Your task to perform on an android device: Open ESPN.com Image 0: 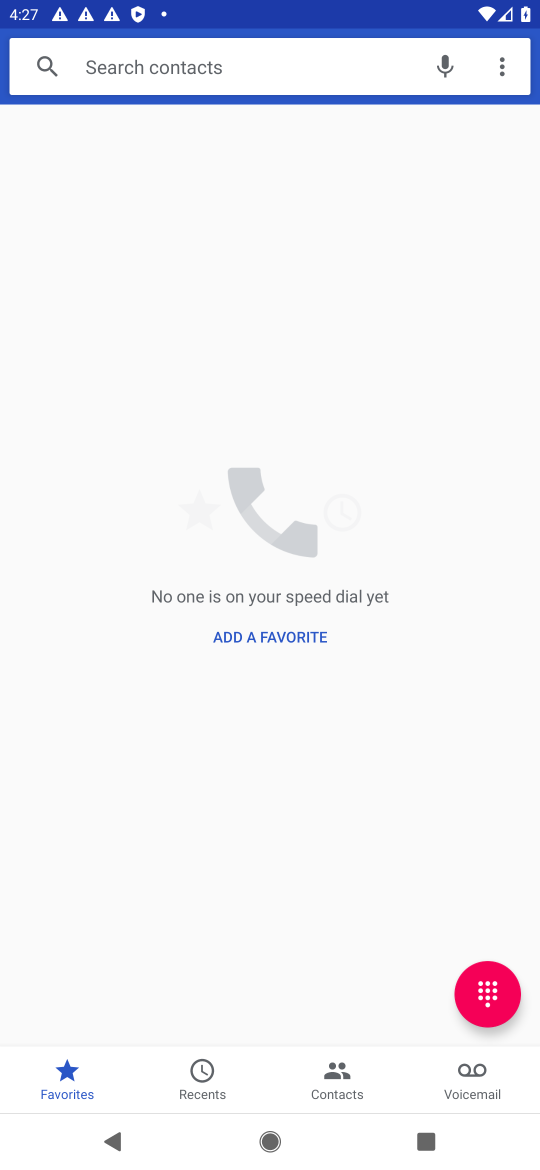
Step 0: press home button
Your task to perform on an android device: Open ESPN.com Image 1: 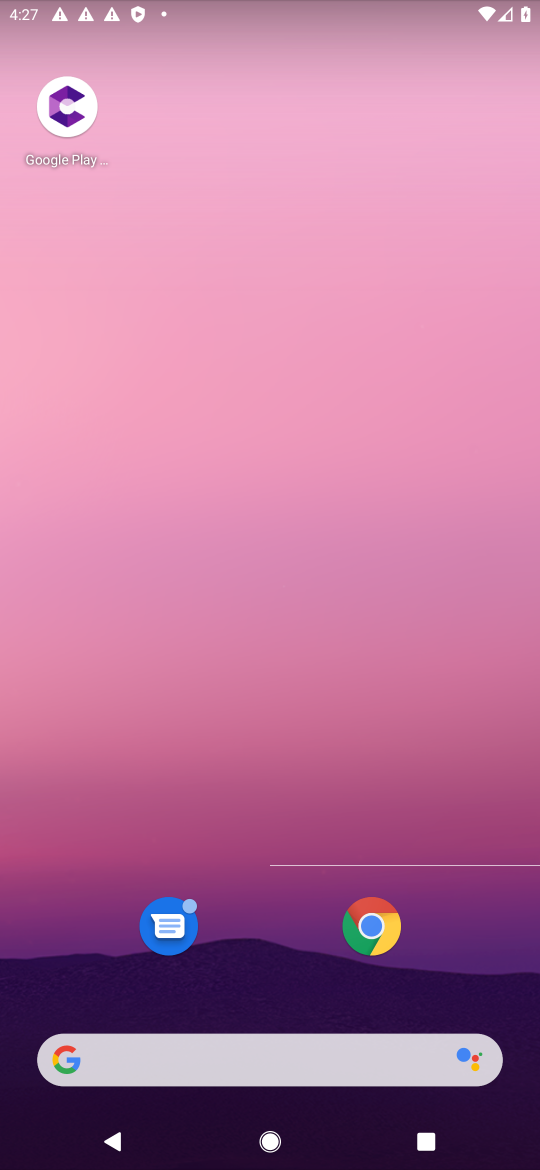
Step 1: click (60, 1051)
Your task to perform on an android device: Open ESPN.com Image 2: 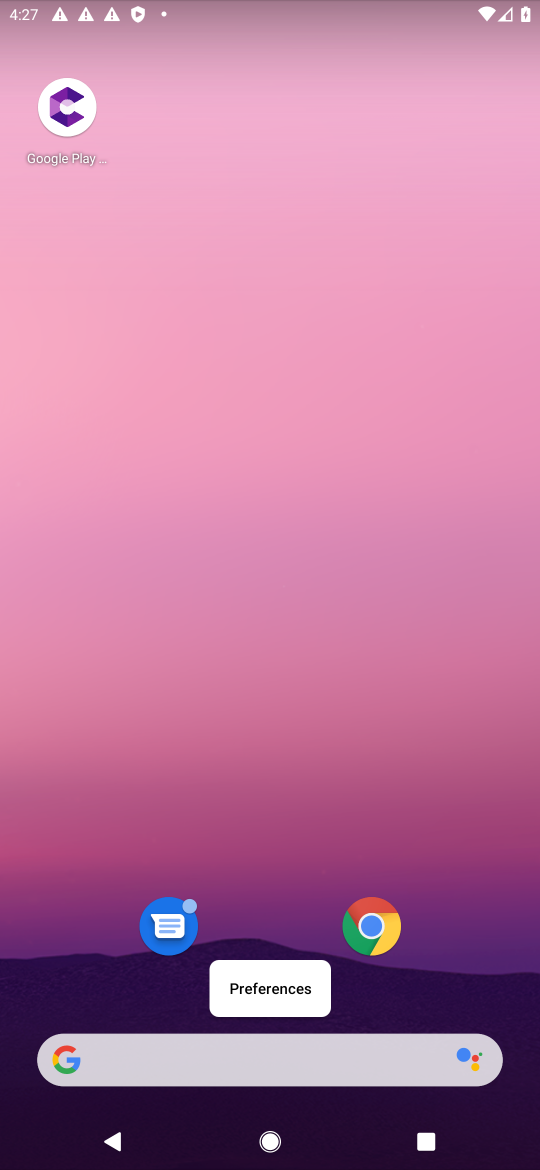
Step 2: click (57, 1061)
Your task to perform on an android device: Open ESPN.com Image 3: 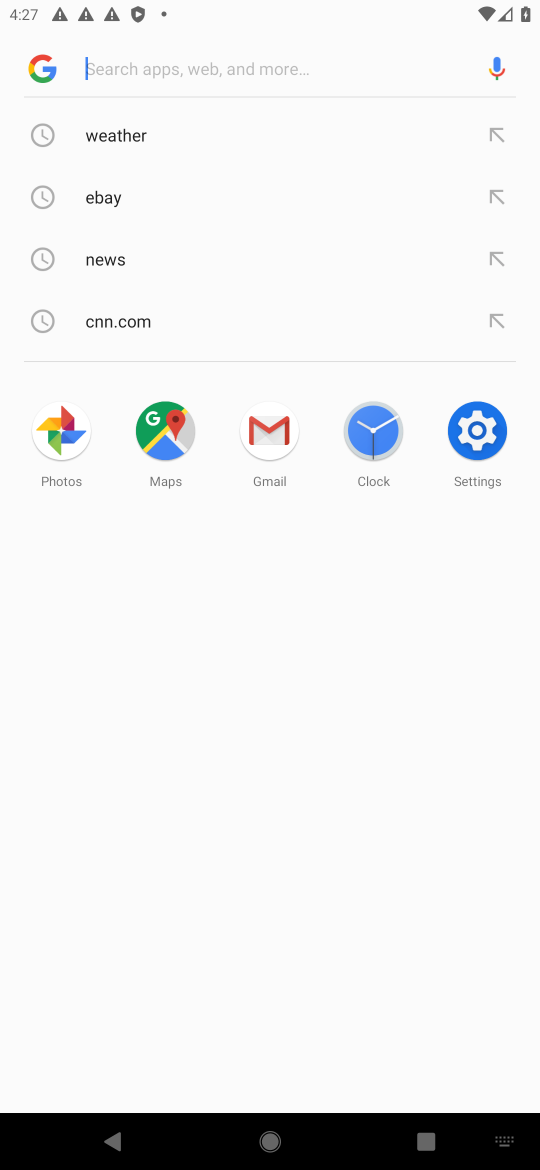
Step 3: type "ESPN.com"
Your task to perform on an android device: Open ESPN.com Image 4: 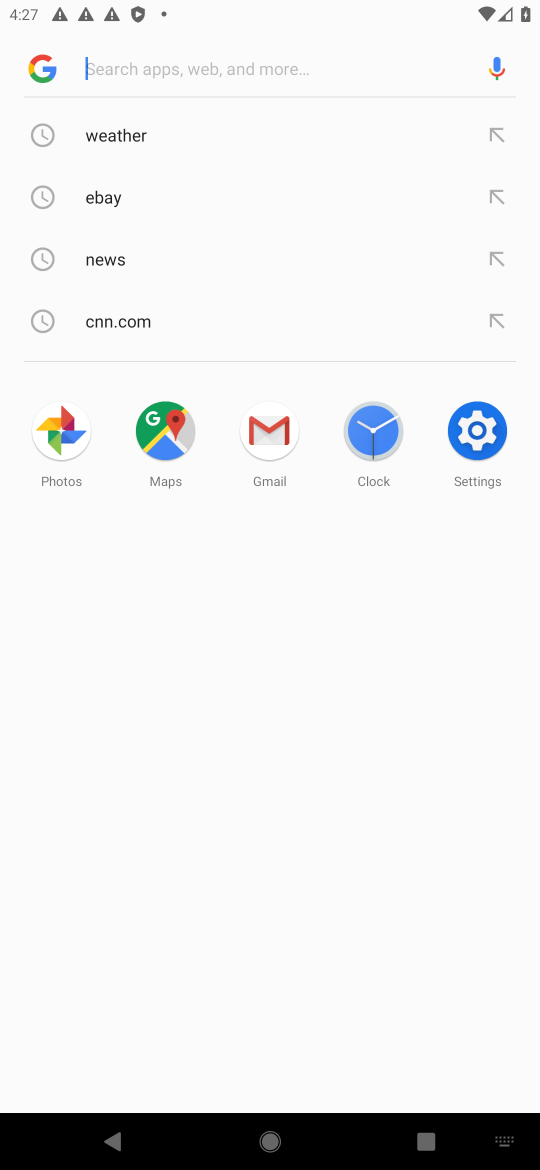
Step 4: click (149, 62)
Your task to perform on an android device: Open ESPN.com Image 5: 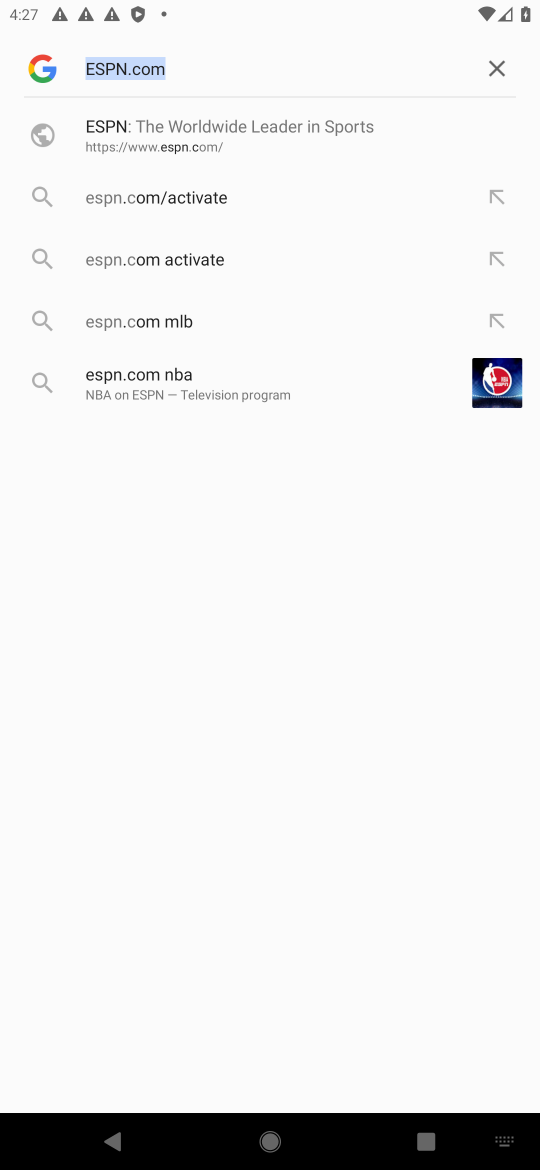
Step 5: press enter
Your task to perform on an android device: Open ESPN.com Image 6: 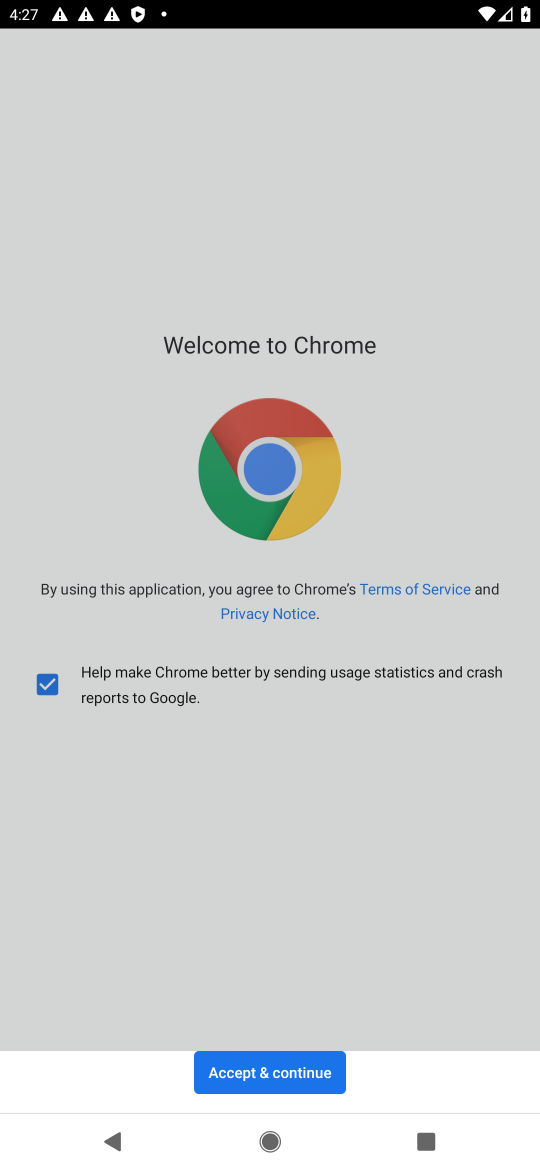
Step 6: click (228, 1071)
Your task to perform on an android device: Open ESPN.com Image 7: 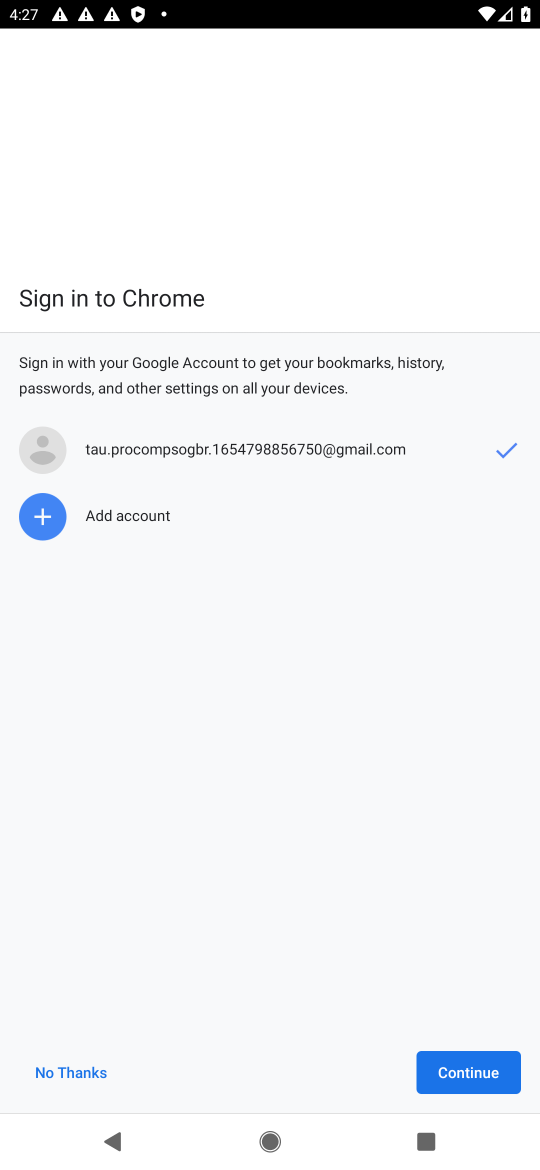
Step 7: click (486, 1075)
Your task to perform on an android device: Open ESPN.com Image 8: 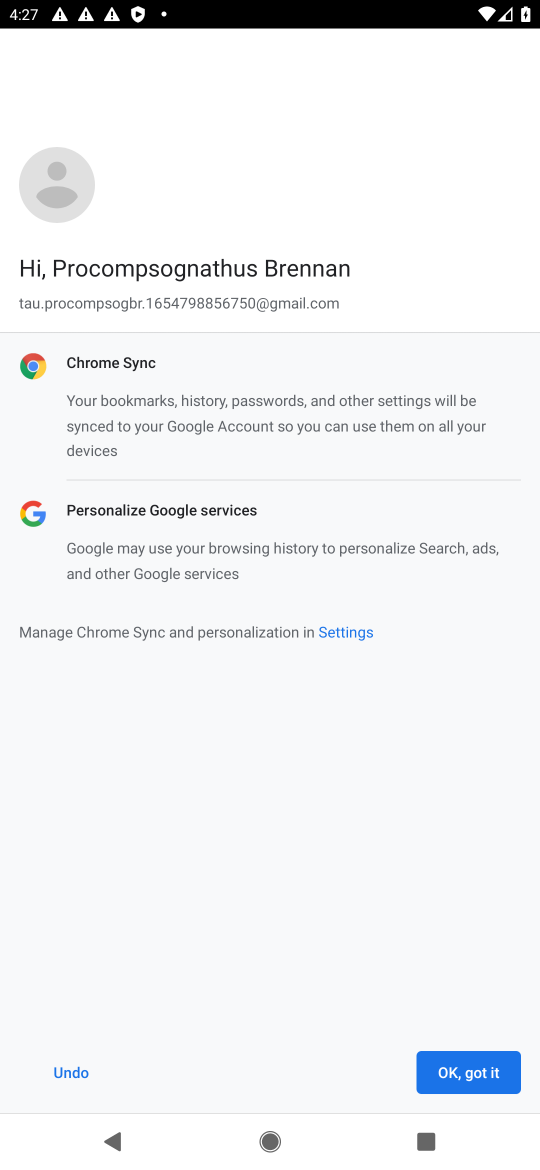
Step 8: click (486, 1075)
Your task to perform on an android device: Open ESPN.com Image 9: 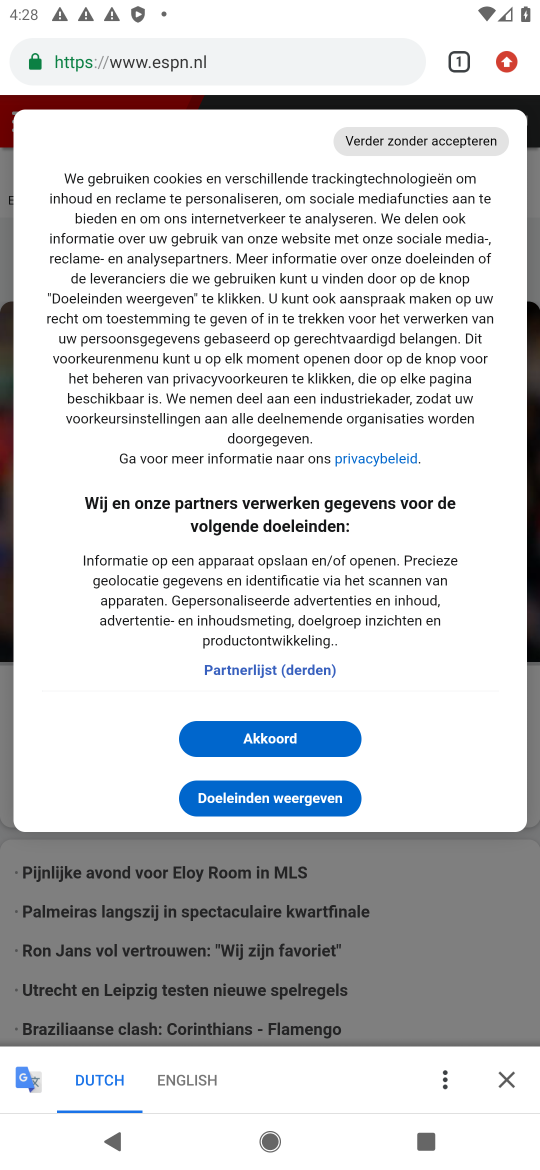
Step 9: click (301, 741)
Your task to perform on an android device: Open ESPN.com Image 10: 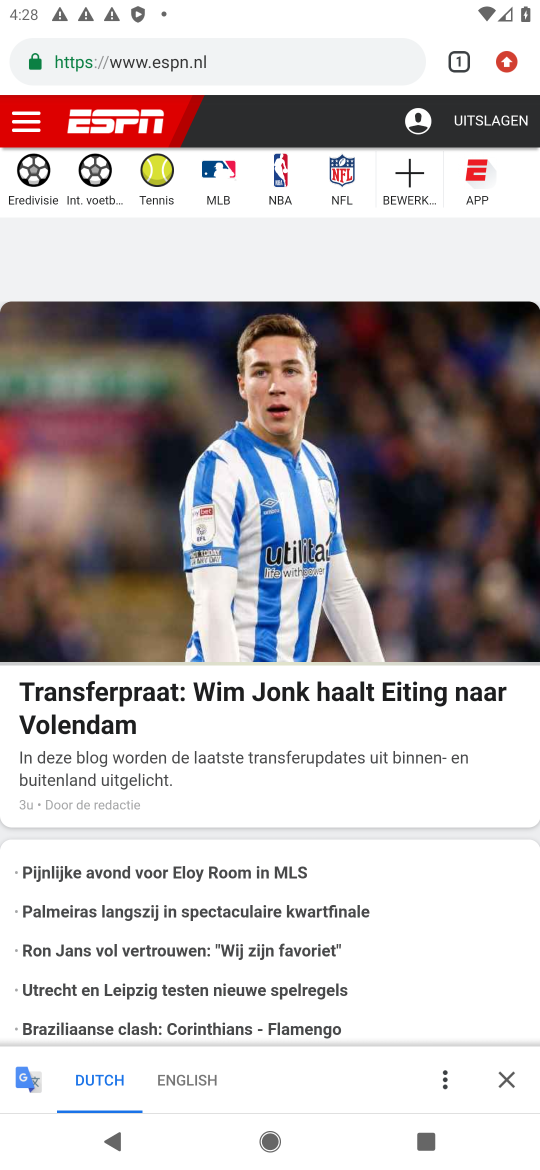
Step 10: task complete